Your task to perform on an android device: Toggle the flashlight Image 0: 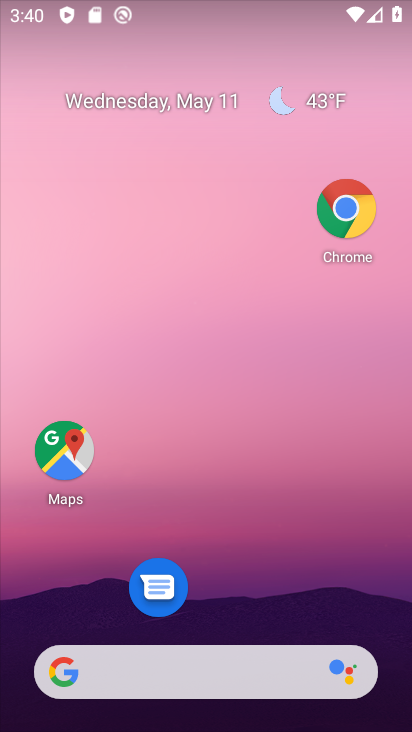
Step 0: task impossible